Your task to perform on an android device: Open Google Chrome Image 0: 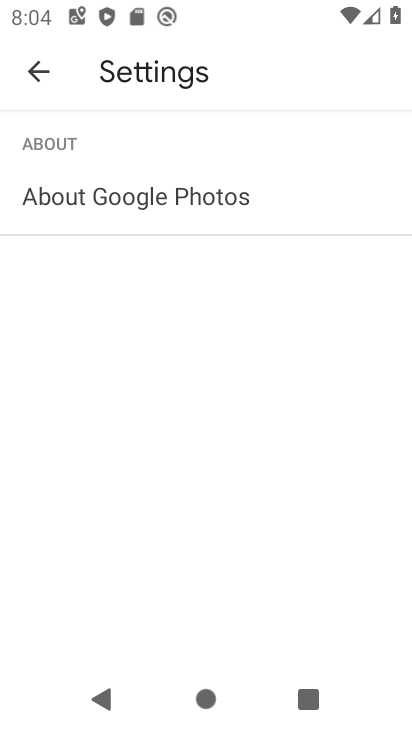
Step 0: press home button
Your task to perform on an android device: Open Google Chrome Image 1: 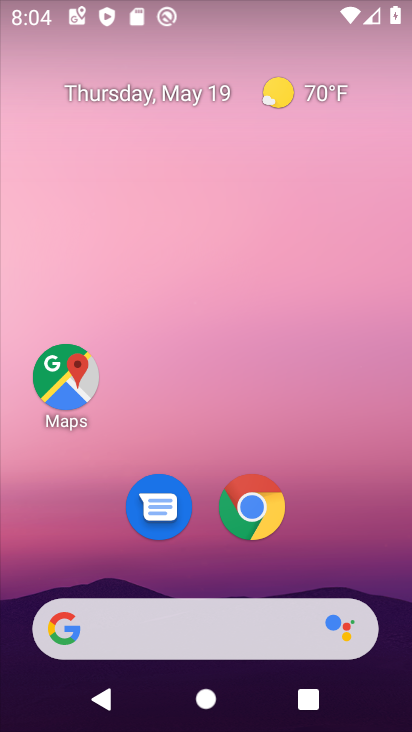
Step 1: click (245, 532)
Your task to perform on an android device: Open Google Chrome Image 2: 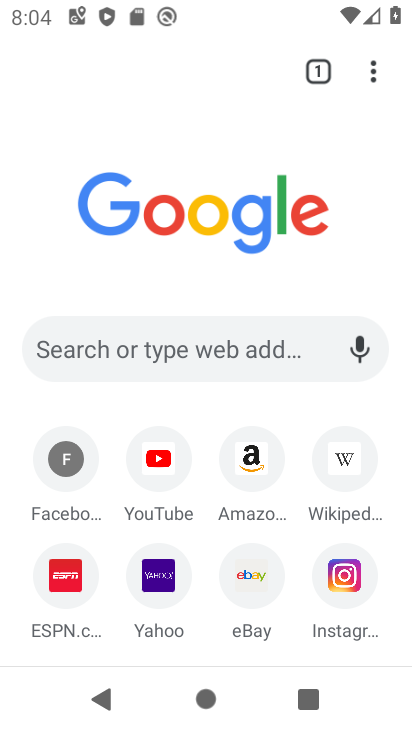
Step 2: task complete